Your task to perform on an android device: toggle location history Image 0: 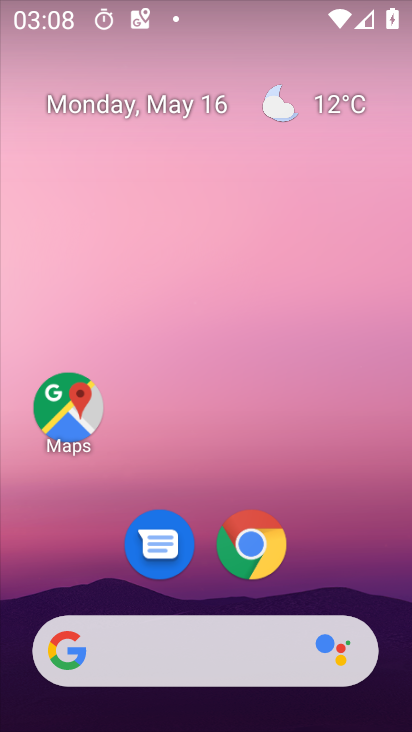
Step 0: drag from (221, 726) to (214, 247)
Your task to perform on an android device: toggle location history Image 1: 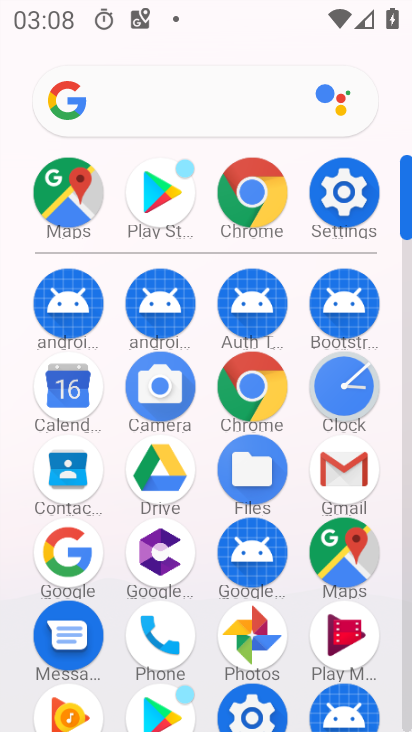
Step 1: click (343, 195)
Your task to perform on an android device: toggle location history Image 2: 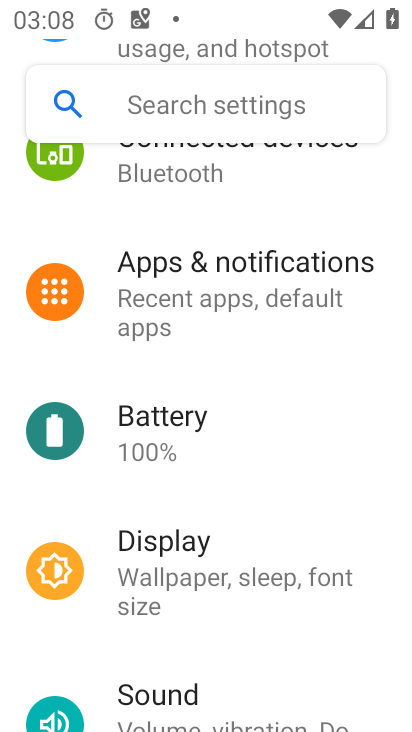
Step 2: drag from (140, 641) to (181, 149)
Your task to perform on an android device: toggle location history Image 3: 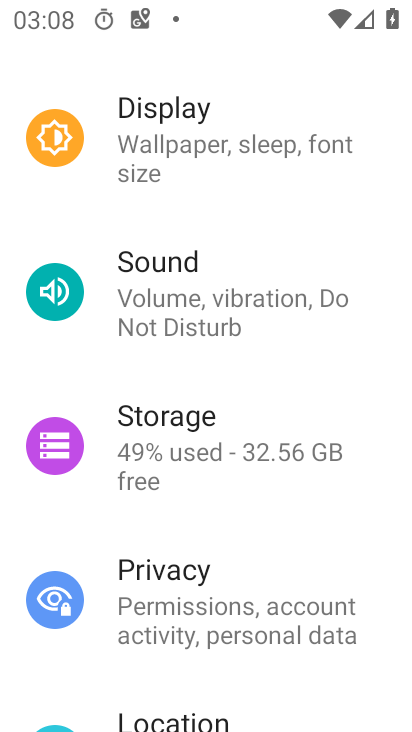
Step 3: drag from (137, 687) to (144, 279)
Your task to perform on an android device: toggle location history Image 4: 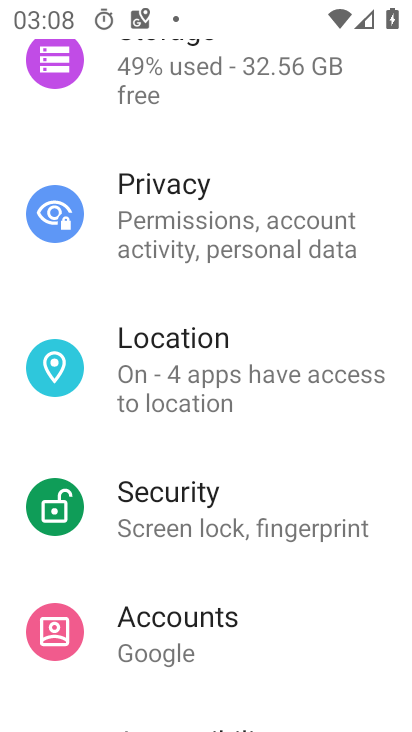
Step 4: click (158, 361)
Your task to perform on an android device: toggle location history Image 5: 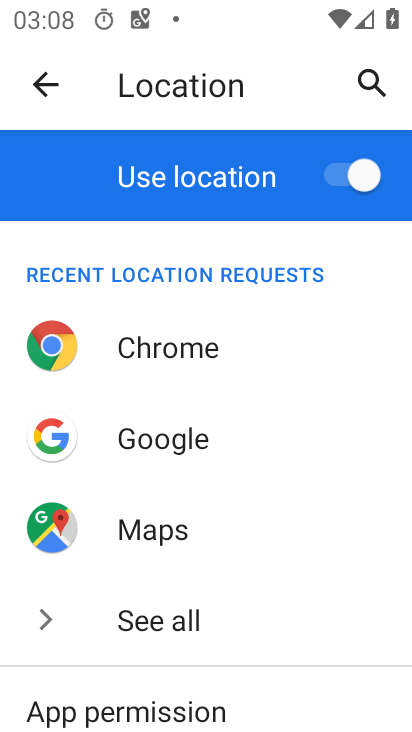
Step 5: drag from (143, 678) to (143, 271)
Your task to perform on an android device: toggle location history Image 6: 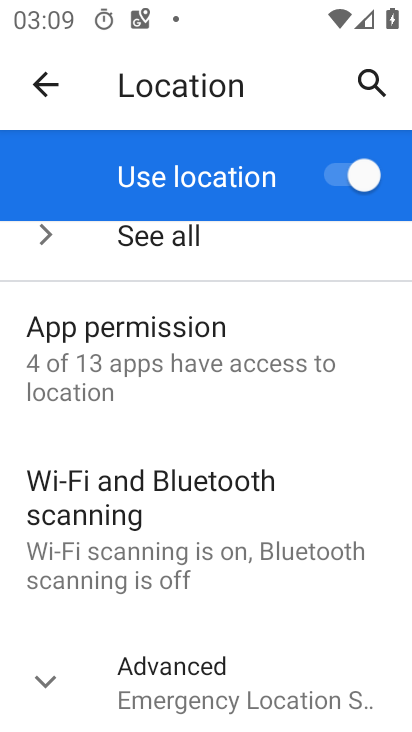
Step 6: click (145, 664)
Your task to perform on an android device: toggle location history Image 7: 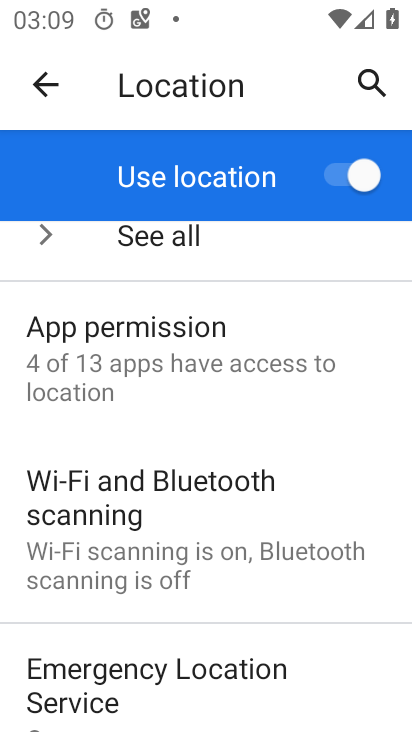
Step 7: drag from (169, 669) to (169, 423)
Your task to perform on an android device: toggle location history Image 8: 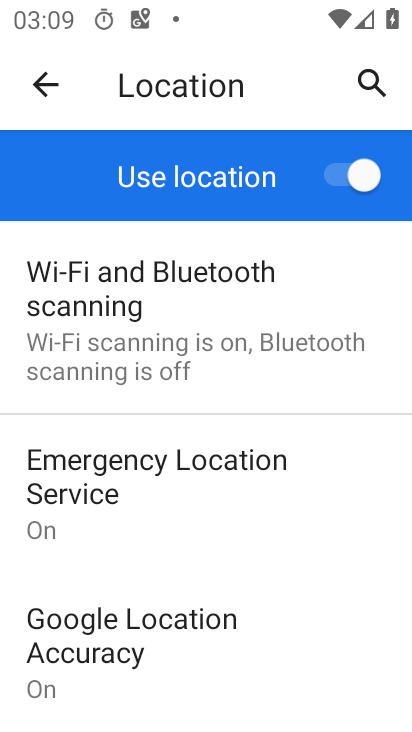
Step 8: drag from (128, 643) to (161, 371)
Your task to perform on an android device: toggle location history Image 9: 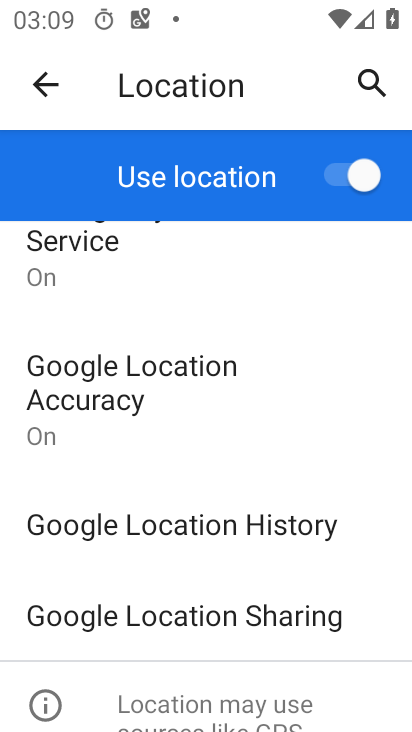
Step 9: click (198, 520)
Your task to perform on an android device: toggle location history Image 10: 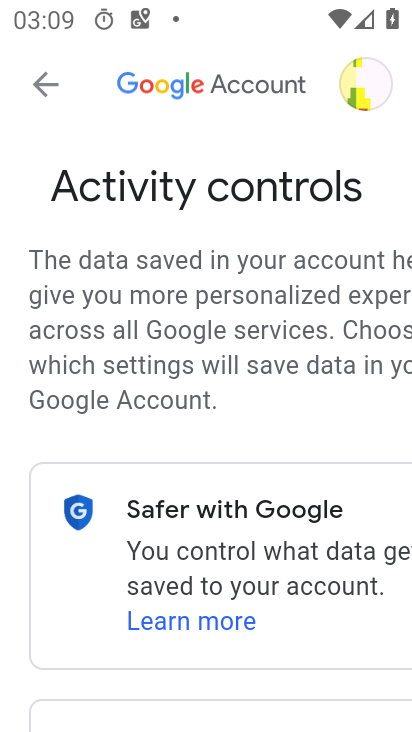
Step 10: drag from (161, 671) to (155, 272)
Your task to perform on an android device: toggle location history Image 11: 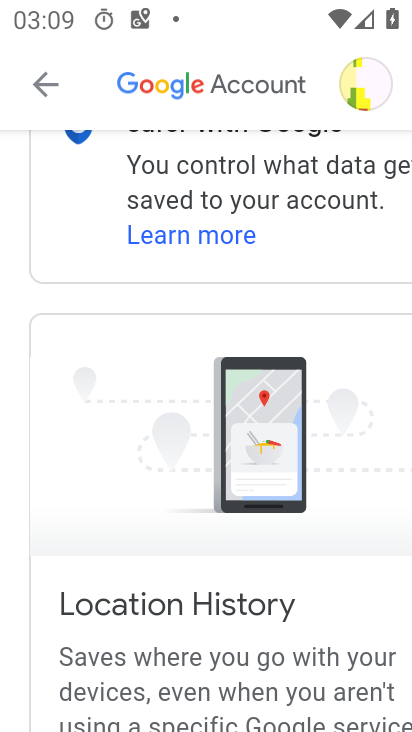
Step 11: drag from (186, 658) to (172, 336)
Your task to perform on an android device: toggle location history Image 12: 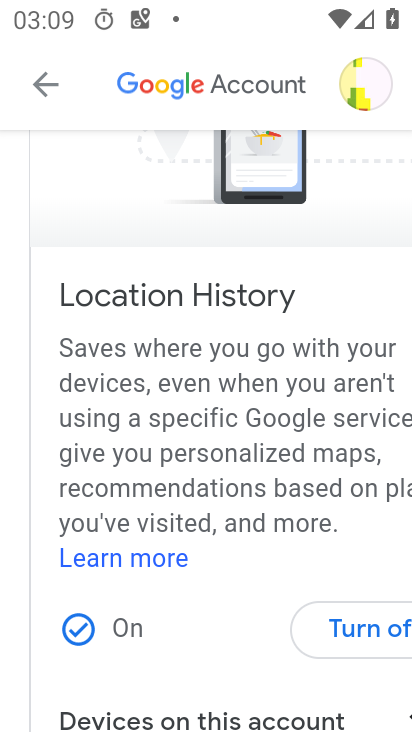
Step 12: click (358, 637)
Your task to perform on an android device: toggle location history Image 13: 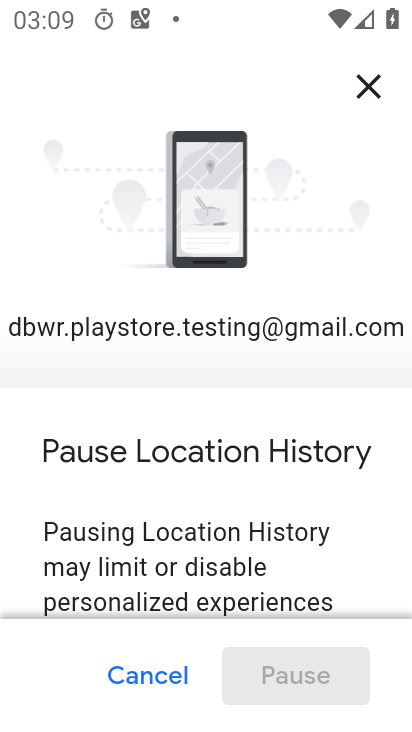
Step 13: drag from (241, 593) to (234, 228)
Your task to perform on an android device: toggle location history Image 14: 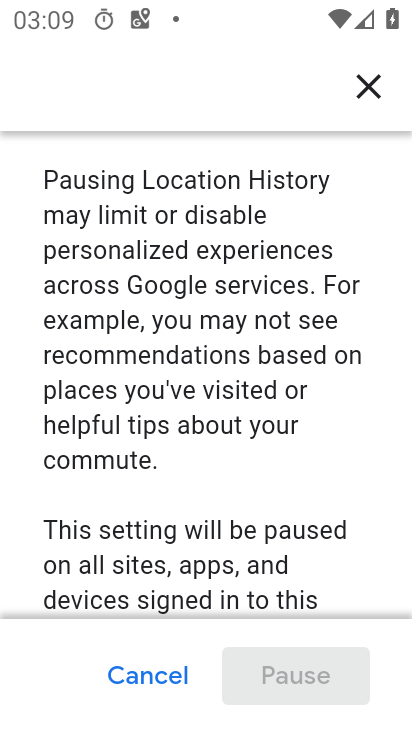
Step 14: drag from (217, 593) to (214, 304)
Your task to perform on an android device: toggle location history Image 15: 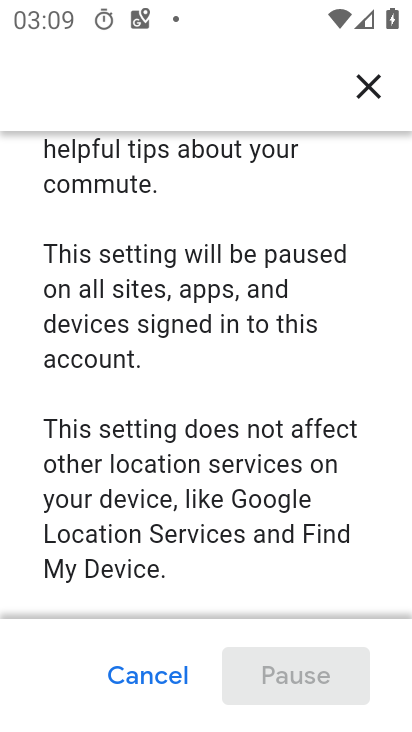
Step 15: drag from (217, 604) to (210, 234)
Your task to perform on an android device: toggle location history Image 16: 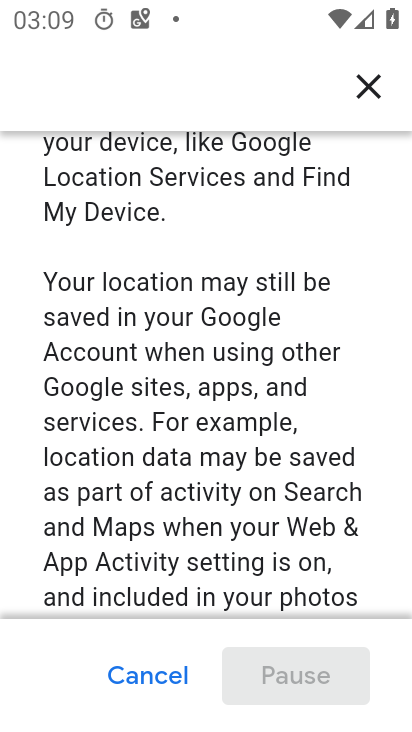
Step 16: drag from (227, 601) to (223, 322)
Your task to perform on an android device: toggle location history Image 17: 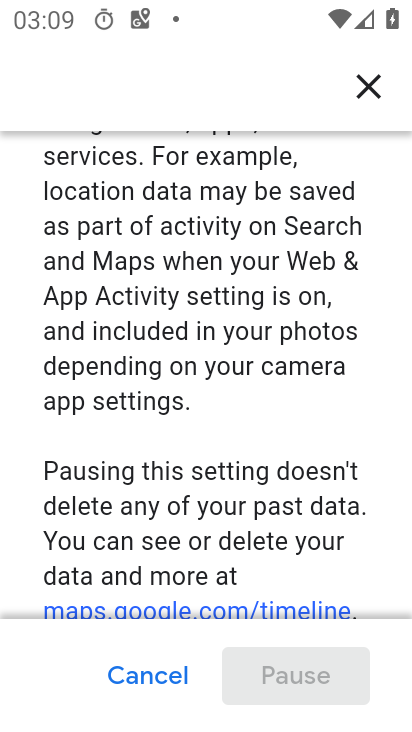
Step 17: drag from (250, 577) to (244, 271)
Your task to perform on an android device: toggle location history Image 18: 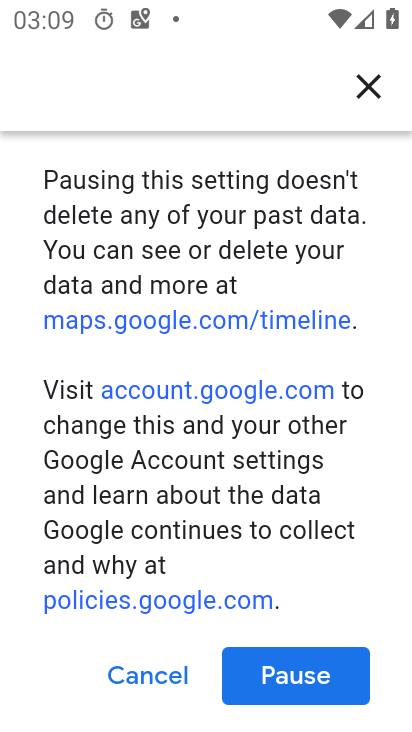
Step 18: click (283, 675)
Your task to perform on an android device: toggle location history Image 19: 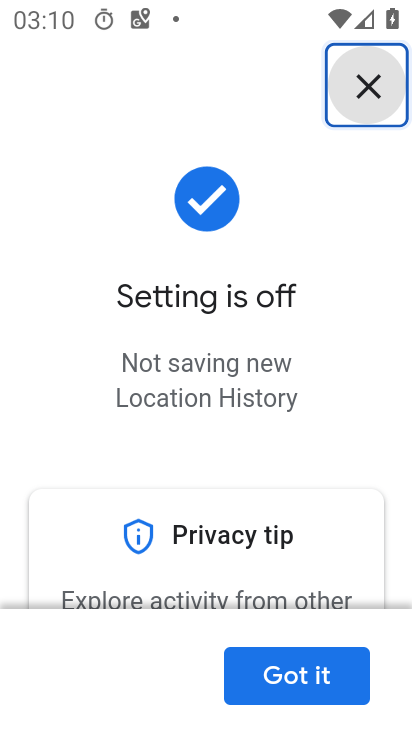
Step 19: click (285, 677)
Your task to perform on an android device: toggle location history Image 20: 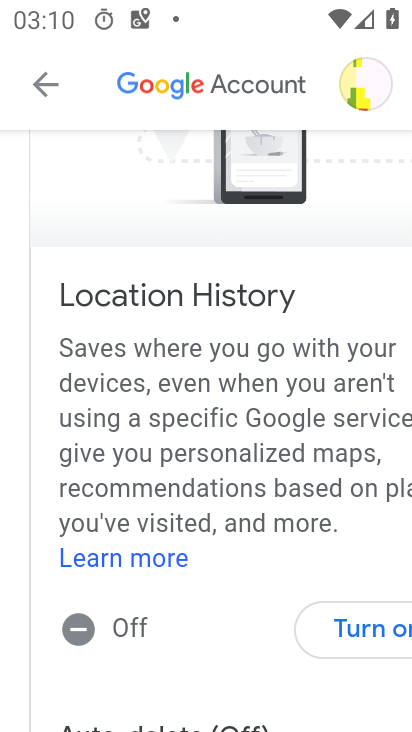
Step 20: task complete